Your task to perform on an android device: Search for pizza restaurants on Maps Image 0: 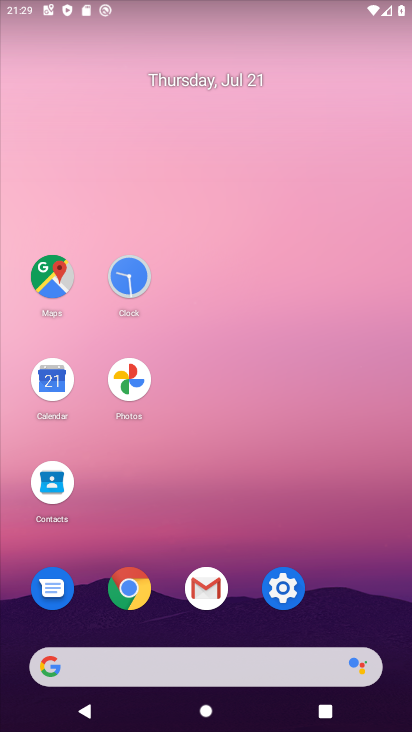
Step 0: click (51, 277)
Your task to perform on an android device: Search for pizza restaurants on Maps Image 1: 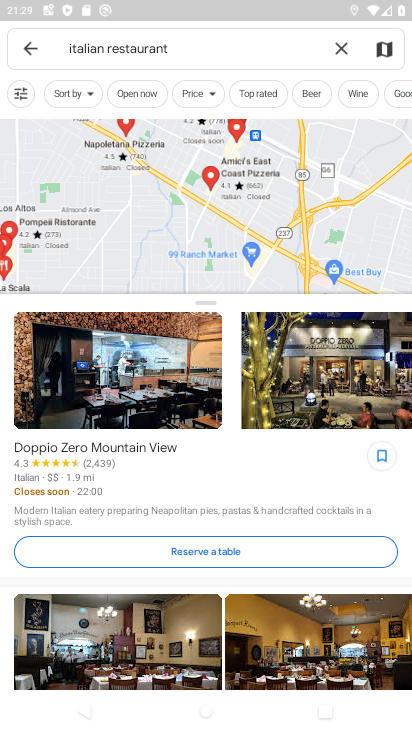
Step 1: click (339, 47)
Your task to perform on an android device: Search for pizza restaurants on Maps Image 2: 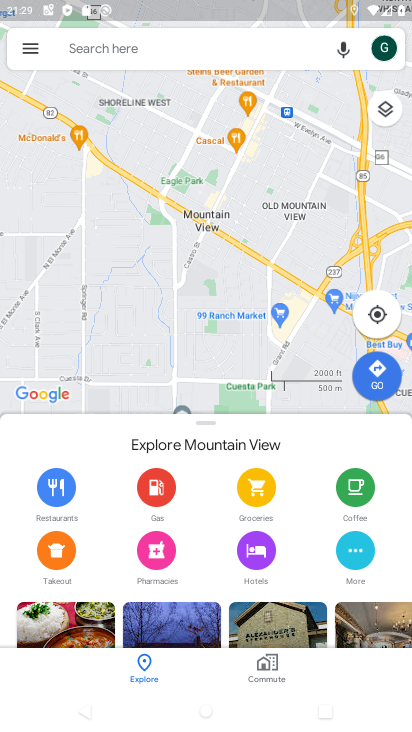
Step 2: click (143, 43)
Your task to perform on an android device: Search for pizza restaurants on Maps Image 3: 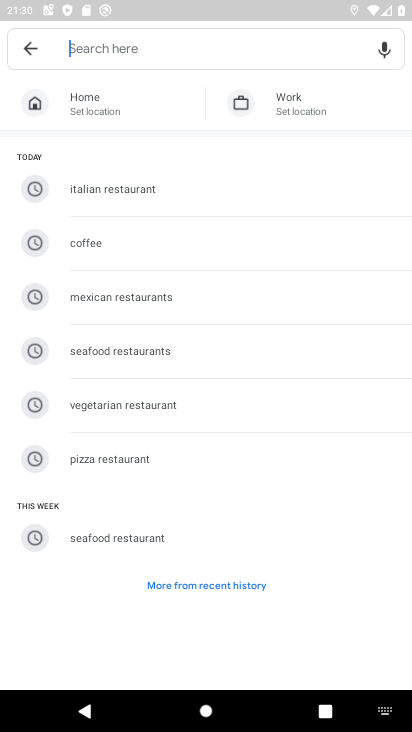
Step 3: click (116, 456)
Your task to perform on an android device: Search for pizza restaurants on Maps Image 4: 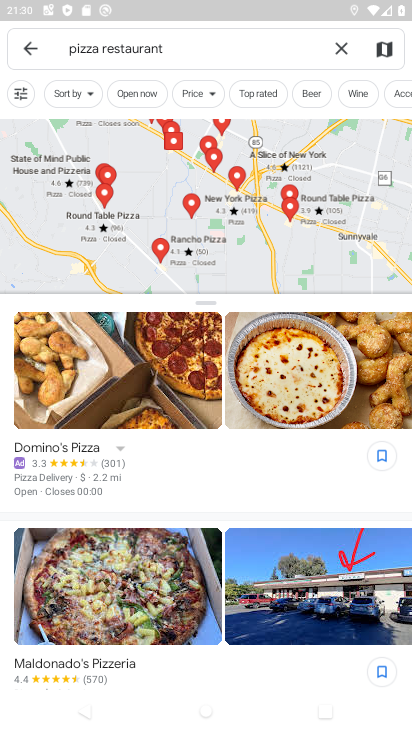
Step 4: task complete